Your task to perform on an android device: Go to wifi settings Image 0: 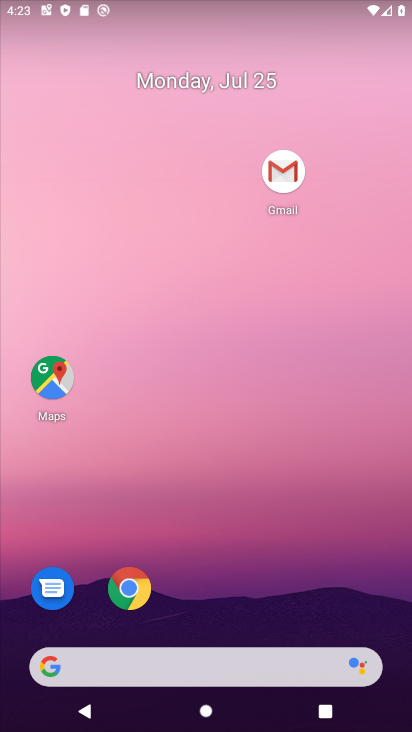
Step 0: drag from (286, 536) to (259, 4)
Your task to perform on an android device: Go to wifi settings Image 1: 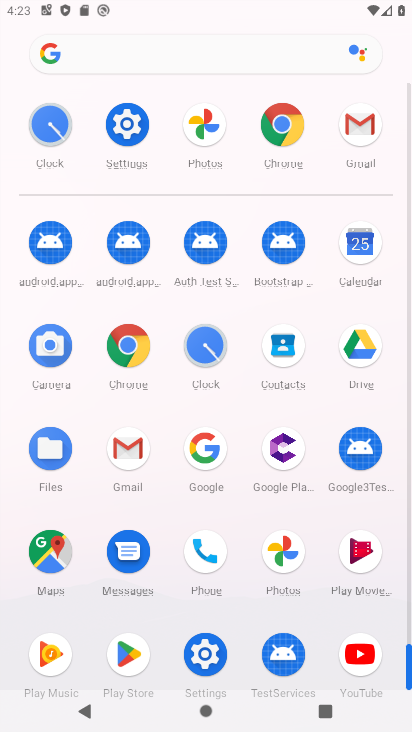
Step 1: click (140, 114)
Your task to perform on an android device: Go to wifi settings Image 2: 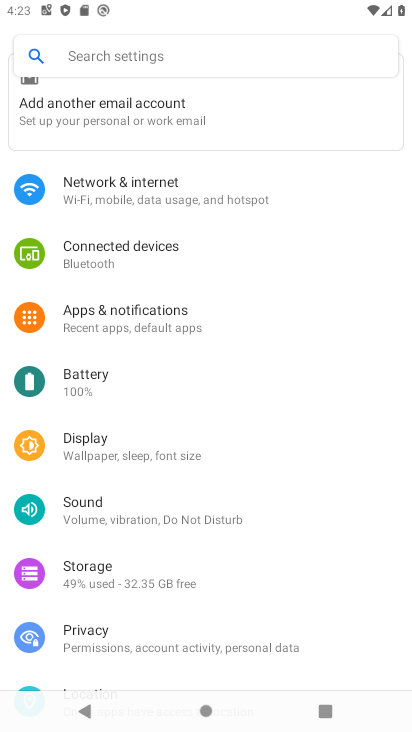
Step 2: click (144, 191)
Your task to perform on an android device: Go to wifi settings Image 3: 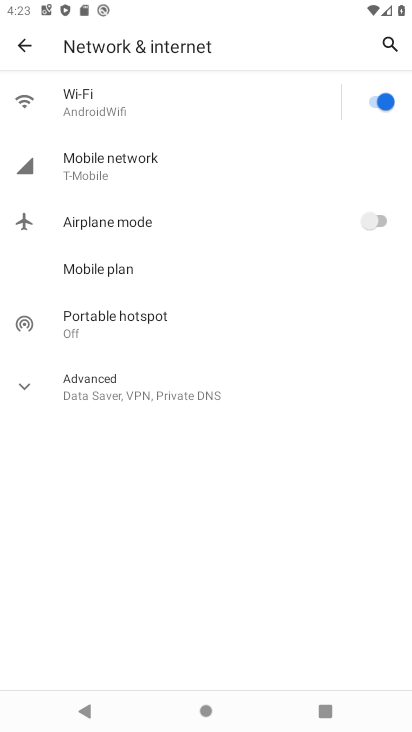
Step 3: click (228, 108)
Your task to perform on an android device: Go to wifi settings Image 4: 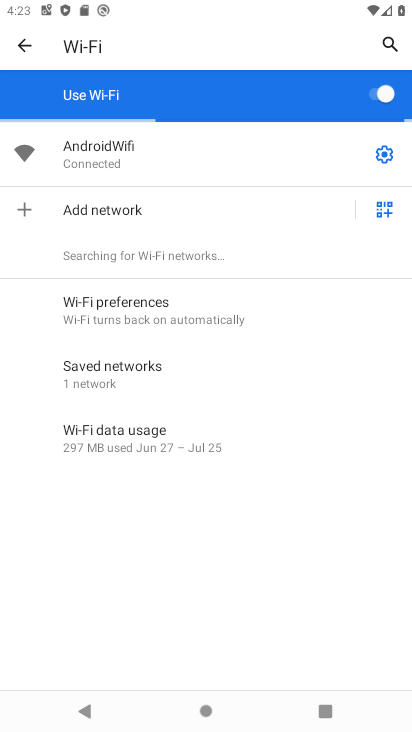
Step 4: click (376, 154)
Your task to perform on an android device: Go to wifi settings Image 5: 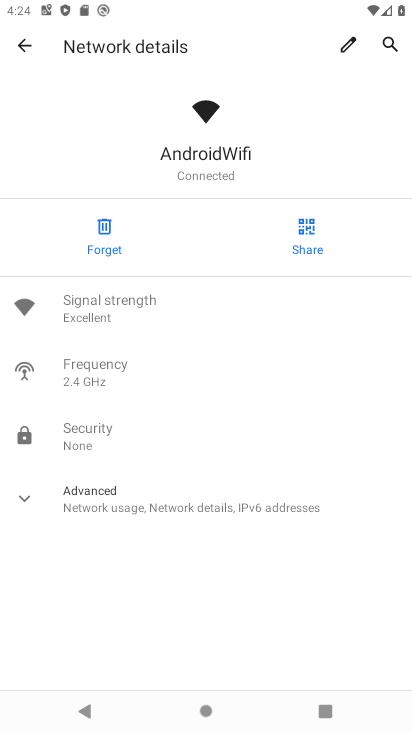
Step 5: task complete